Your task to perform on an android device: toggle data saver in the chrome app Image 0: 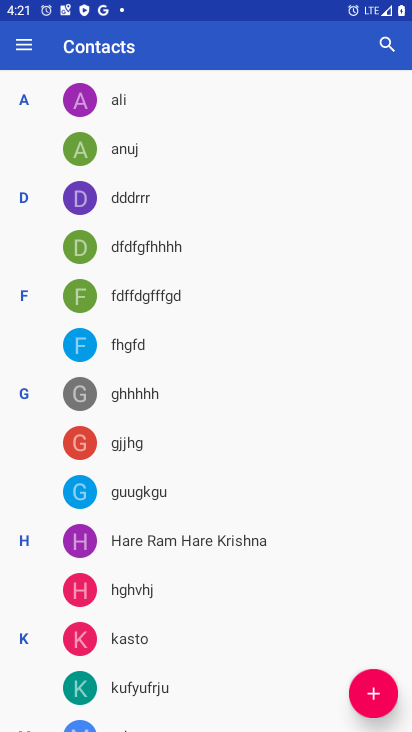
Step 0: press home button
Your task to perform on an android device: toggle data saver in the chrome app Image 1: 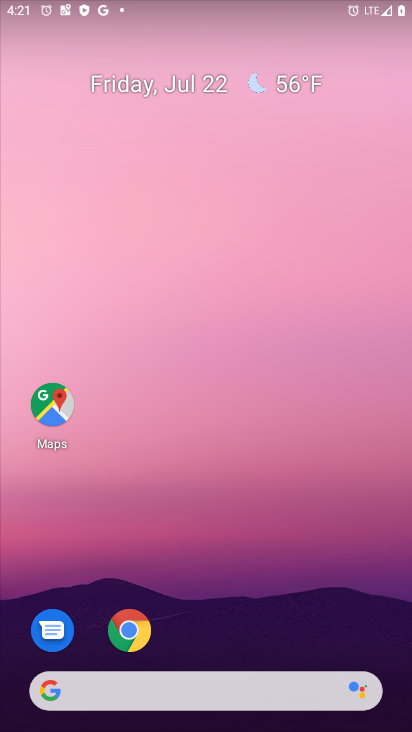
Step 1: click (137, 650)
Your task to perform on an android device: toggle data saver in the chrome app Image 2: 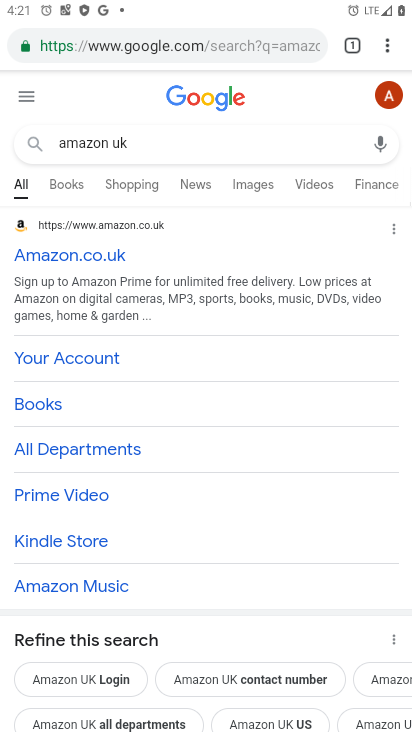
Step 2: drag from (383, 44) to (240, 513)
Your task to perform on an android device: toggle data saver in the chrome app Image 3: 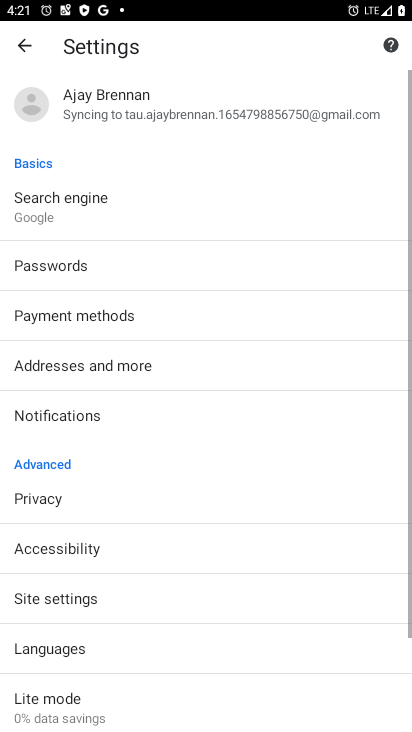
Step 3: drag from (103, 670) to (80, 522)
Your task to perform on an android device: toggle data saver in the chrome app Image 4: 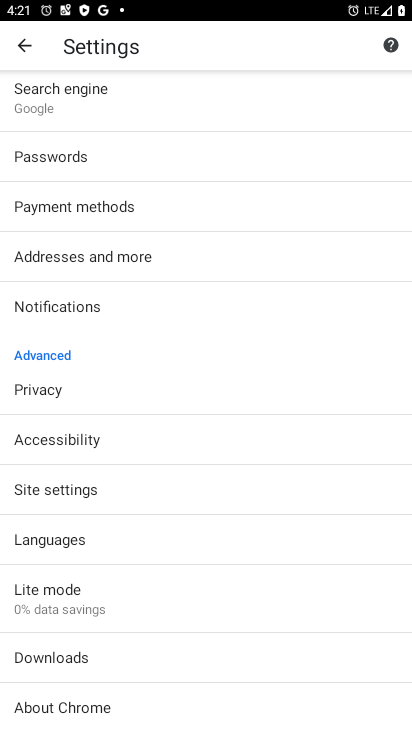
Step 4: click (104, 602)
Your task to perform on an android device: toggle data saver in the chrome app Image 5: 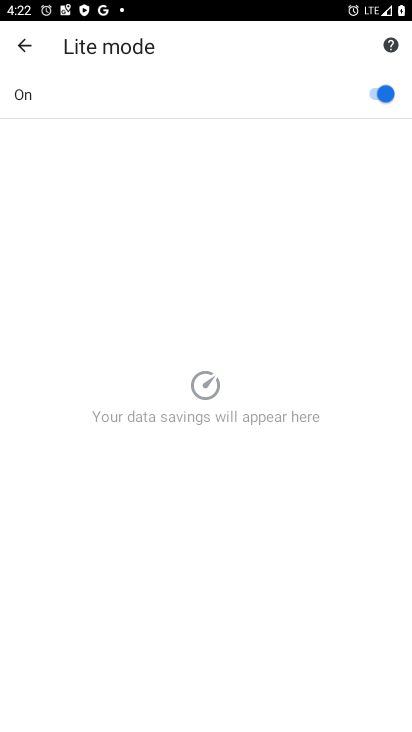
Step 5: click (385, 89)
Your task to perform on an android device: toggle data saver in the chrome app Image 6: 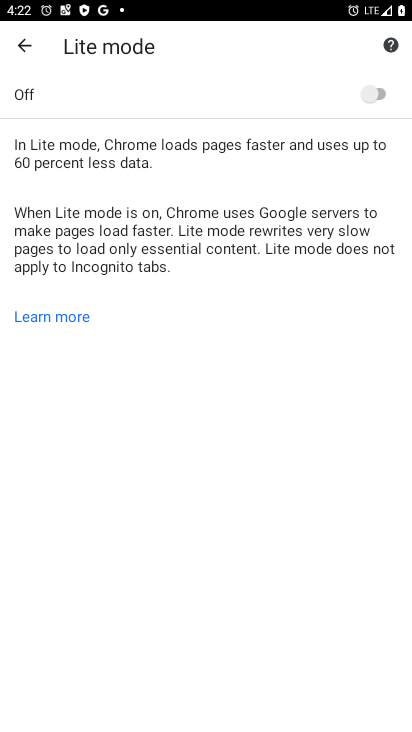
Step 6: task complete